Your task to perform on an android device: toggle location history Image 0: 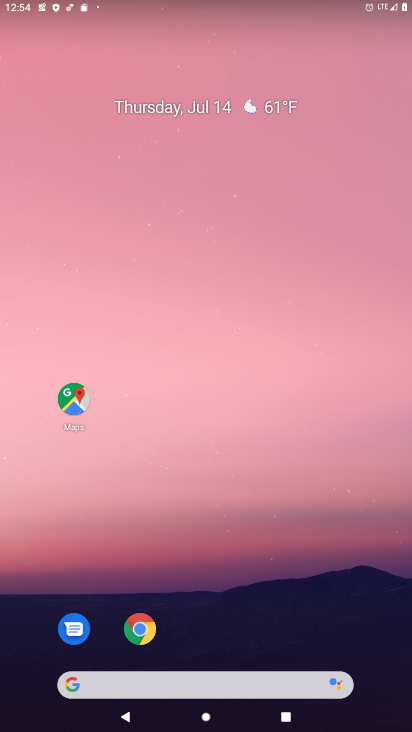
Step 0: click (69, 397)
Your task to perform on an android device: toggle location history Image 1: 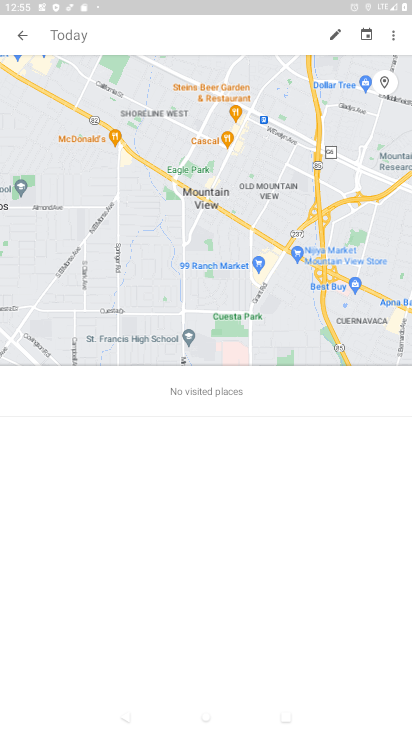
Step 1: click (392, 32)
Your task to perform on an android device: toggle location history Image 2: 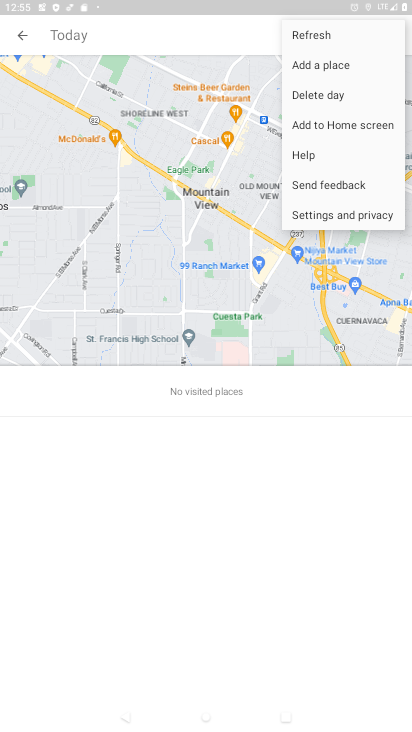
Step 2: click (334, 221)
Your task to perform on an android device: toggle location history Image 3: 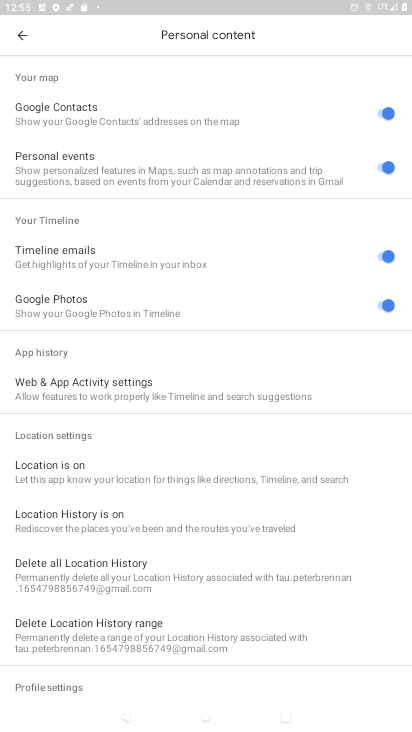
Step 3: click (72, 516)
Your task to perform on an android device: toggle location history Image 4: 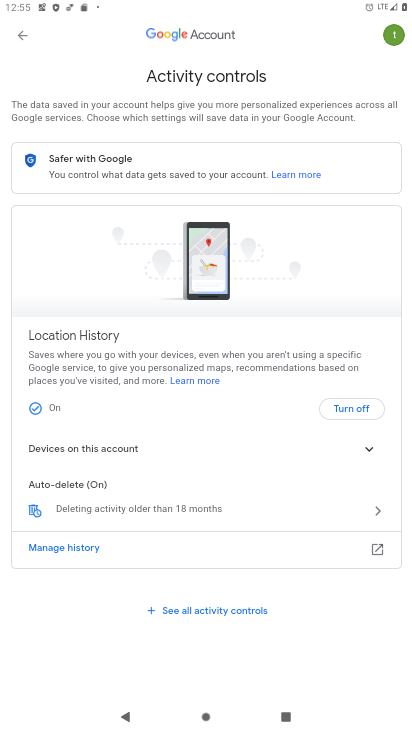
Step 4: click (355, 408)
Your task to perform on an android device: toggle location history Image 5: 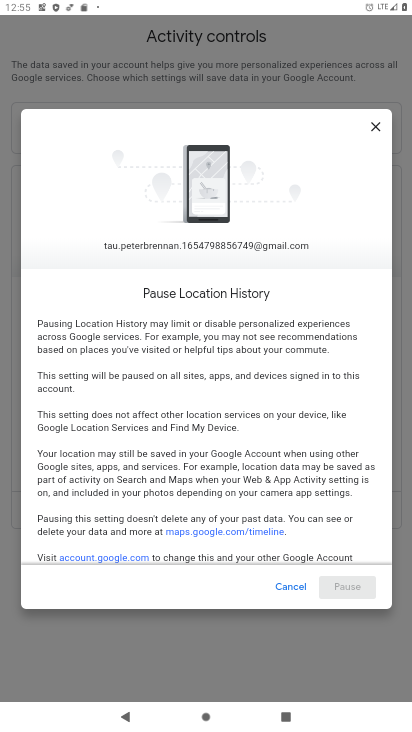
Step 5: drag from (306, 517) to (289, 283)
Your task to perform on an android device: toggle location history Image 6: 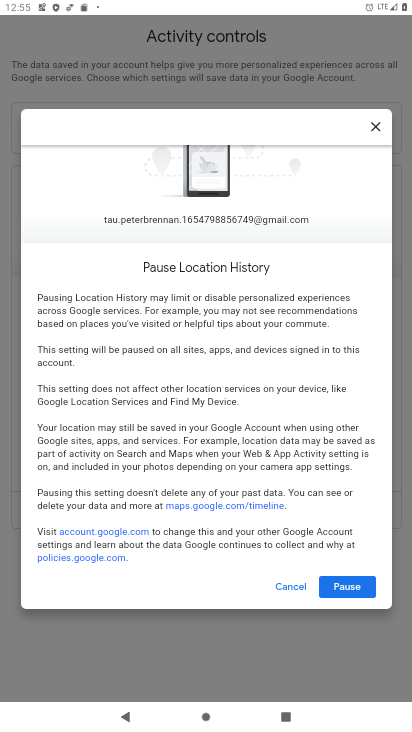
Step 6: click (340, 587)
Your task to perform on an android device: toggle location history Image 7: 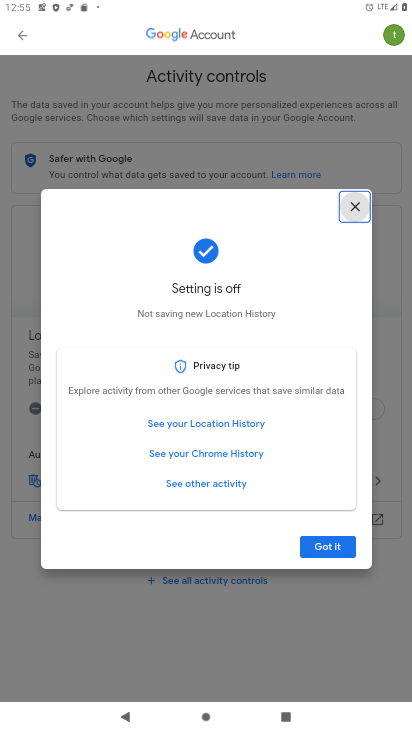
Step 7: click (331, 550)
Your task to perform on an android device: toggle location history Image 8: 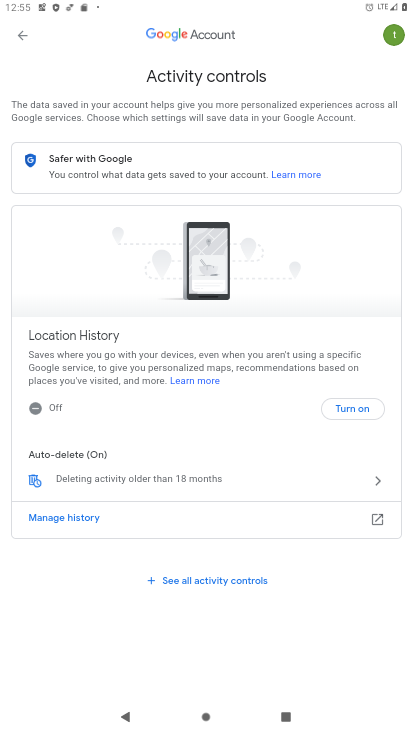
Step 8: task complete